Your task to perform on an android device: Go to display settings Image 0: 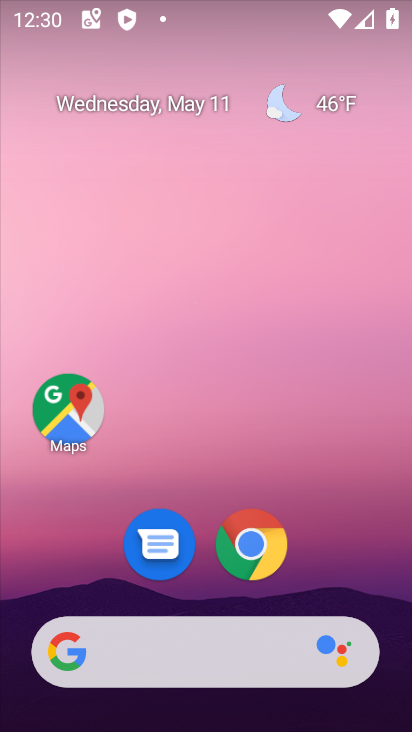
Step 0: drag from (378, 588) to (313, 65)
Your task to perform on an android device: Go to display settings Image 1: 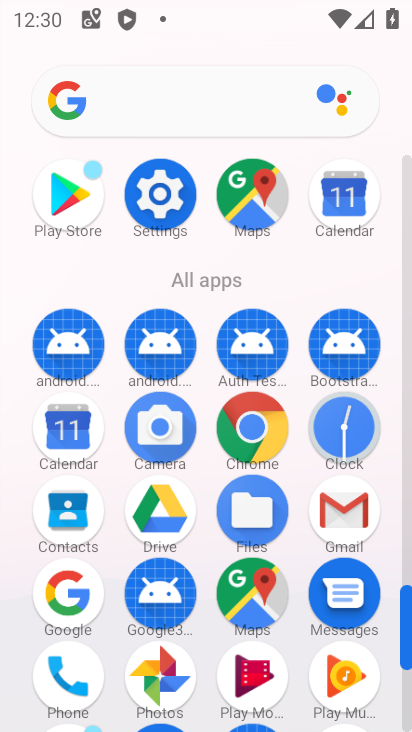
Step 1: click (408, 699)
Your task to perform on an android device: Go to display settings Image 2: 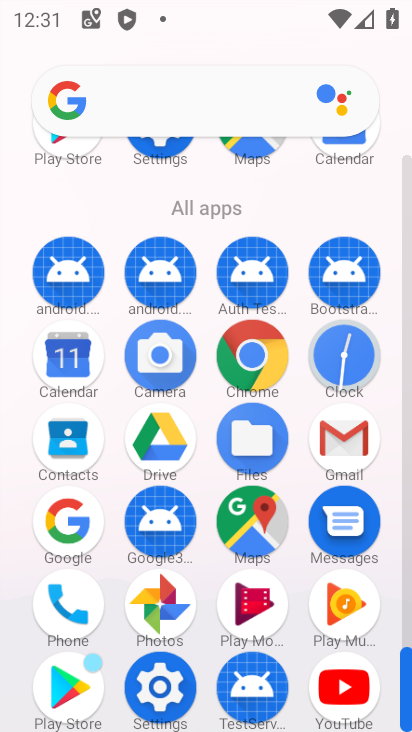
Step 2: click (163, 688)
Your task to perform on an android device: Go to display settings Image 3: 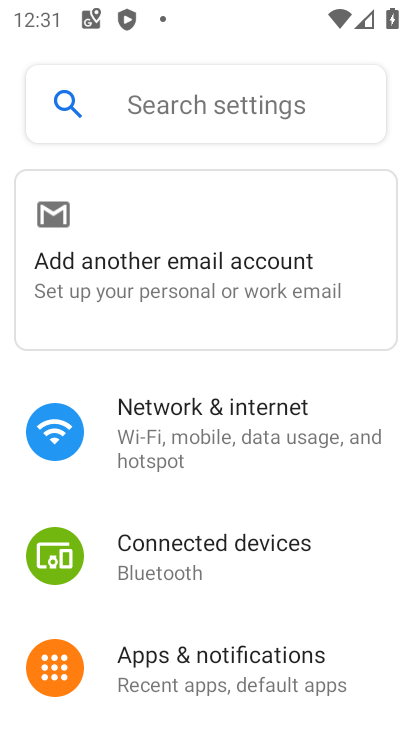
Step 3: drag from (240, 622) to (242, 238)
Your task to perform on an android device: Go to display settings Image 4: 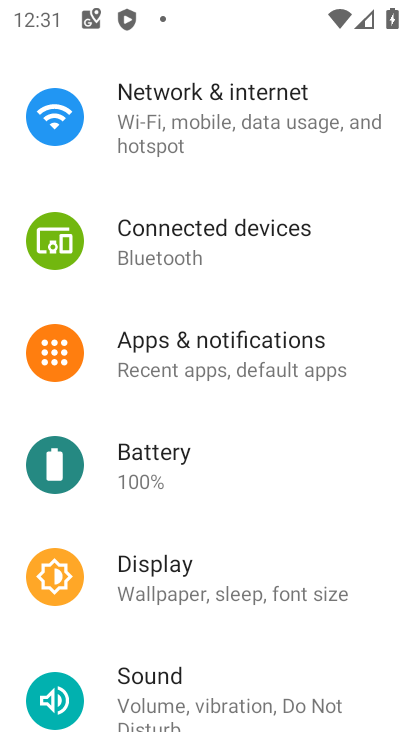
Step 4: click (175, 577)
Your task to perform on an android device: Go to display settings Image 5: 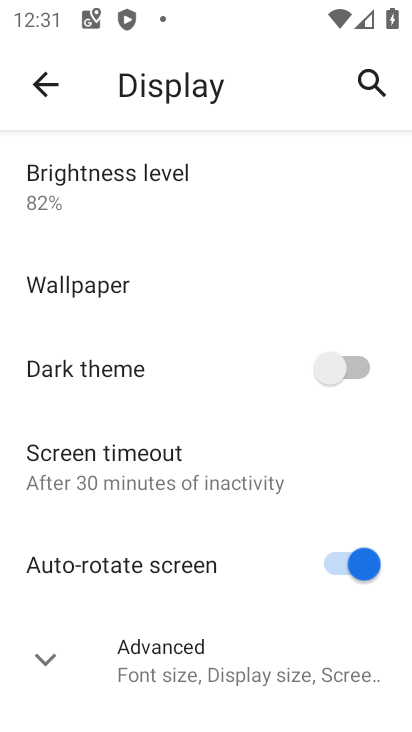
Step 5: click (38, 651)
Your task to perform on an android device: Go to display settings Image 6: 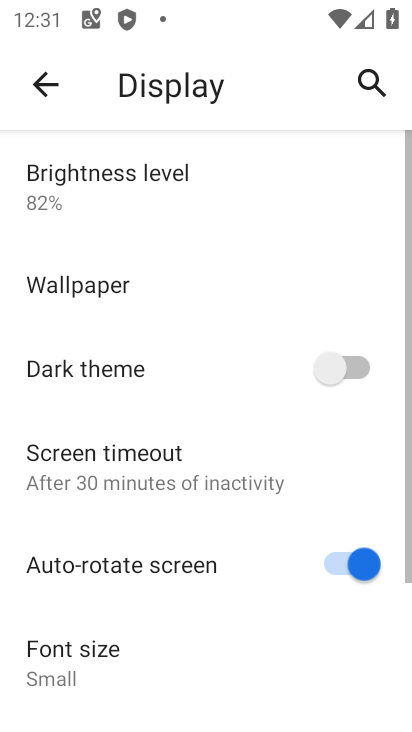
Step 6: task complete